Your task to perform on an android device: delete location history Image 0: 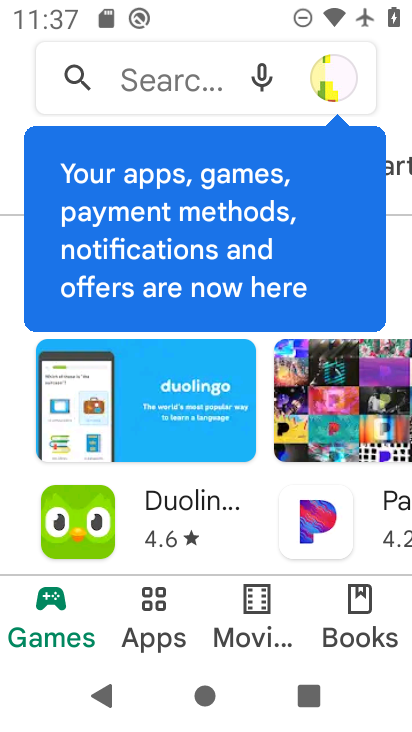
Step 0: press back button
Your task to perform on an android device: delete location history Image 1: 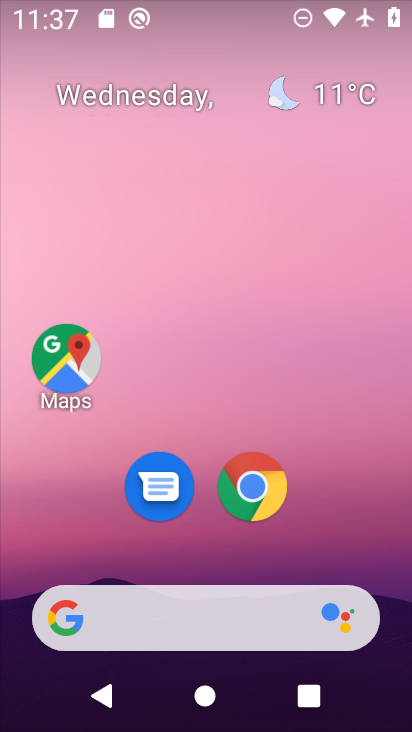
Step 1: drag from (317, 499) to (240, 8)
Your task to perform on an android device: delete location history Image 2: 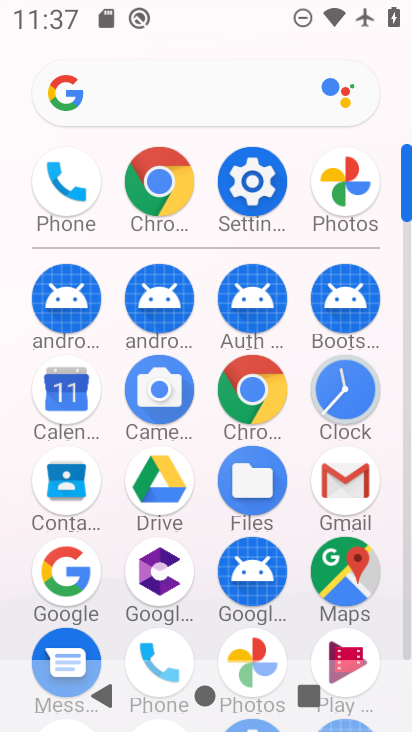
Step 2: click (249, 179)
Your task to perform on an android device: delete location history Image 3: 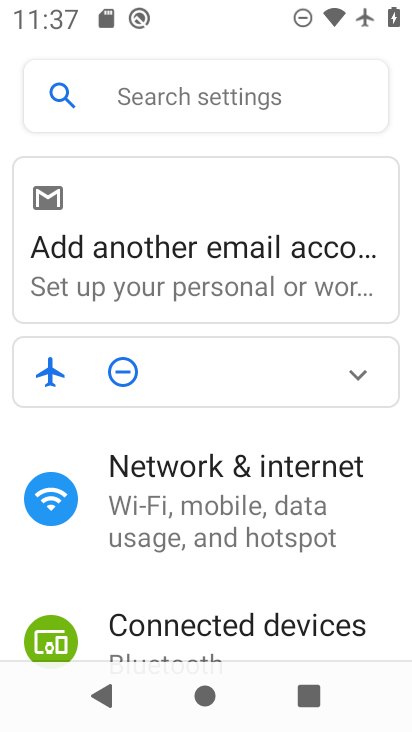
Step 3: drag from (261, 554) to (277, 100)
Your task to perform on an android device: delete location history Image 4: 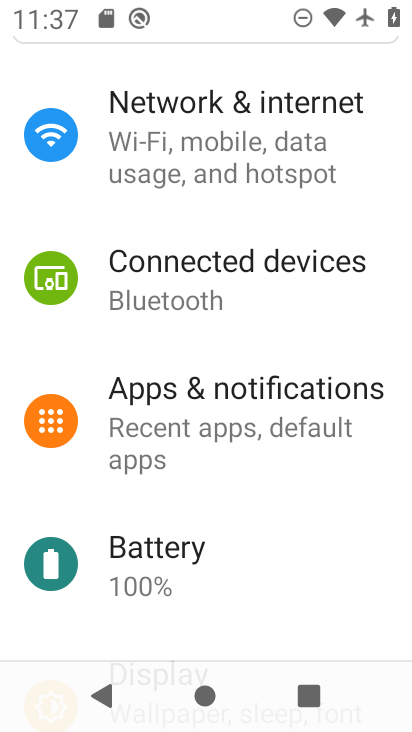
Step 4: drag from (260, 529) to (255, 135)
Your task to perform on an android device: delete location history Image 5: 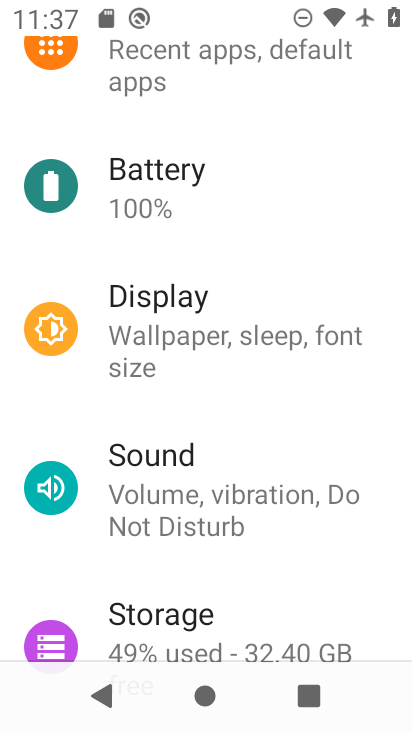
Step 5: drag from (214, 549) to (232, 259)
Your task to perform on an android device: delete location history Image 6: 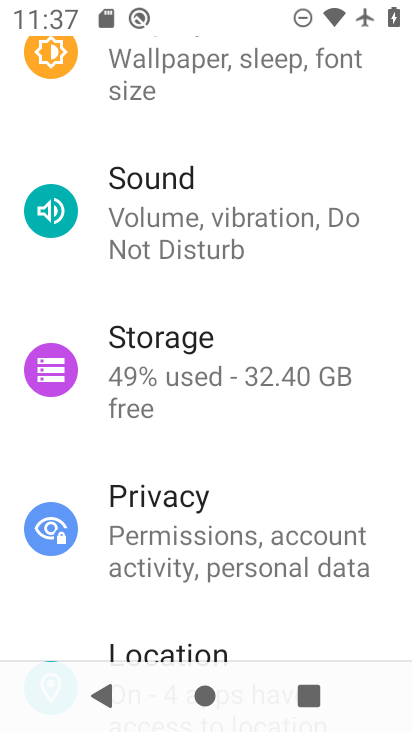
Step 6: drag from (271, 579) to (263, 116)
Your task to perform on an android device: delete location history Image 7: 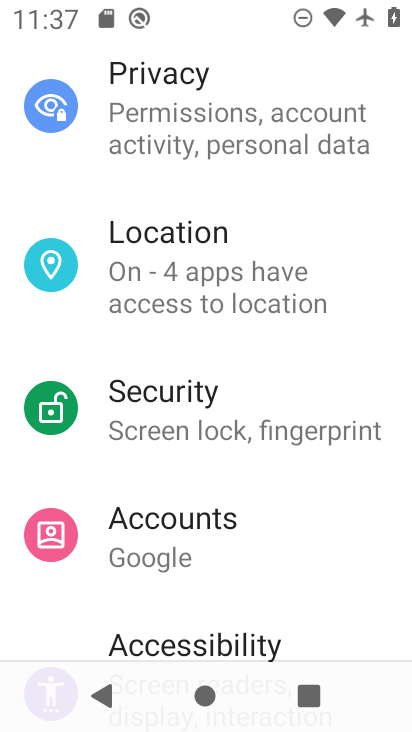
Step 7: click (243, 255)
Your task to perform on an android device: delete location history Image 8: 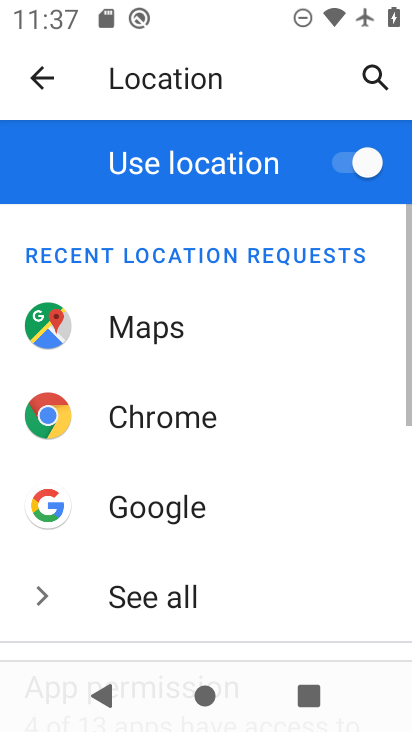
Step 8: drag from (275, 494) to (236, 76)
Your task to perform on an android device: delete location history Image 9: 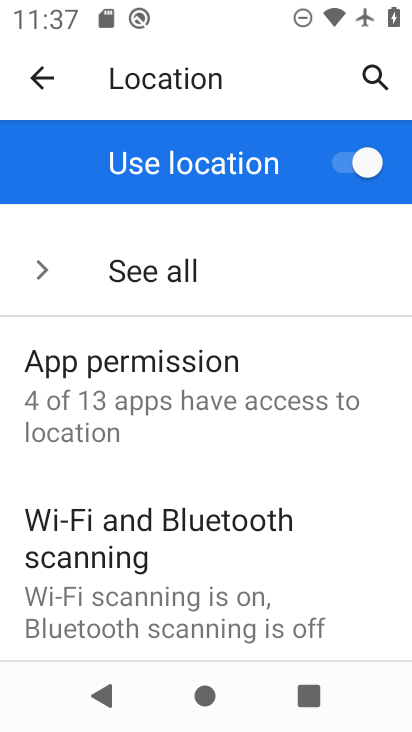
Step 9: drag from (240, 572) to (262, 222)
Your task to perform on an android device: delete location history Image 10: 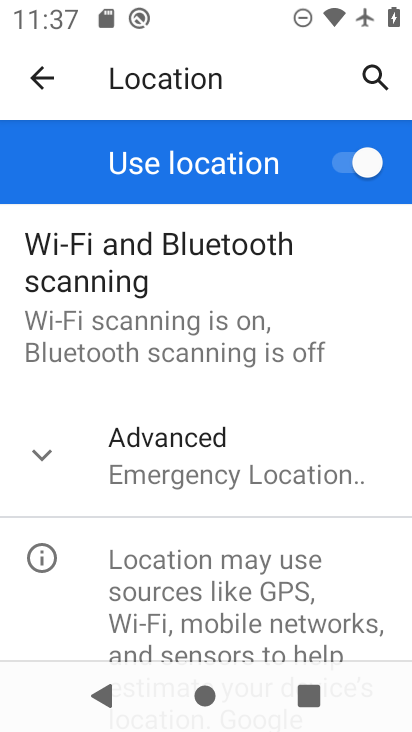
Step 10: click (212, 449)
Your task to perform on an android device: delete location history Image 11: 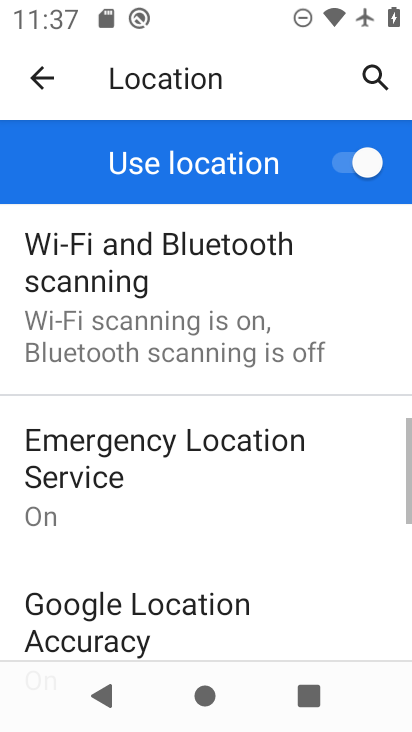
Step 11: drag from (258, 521) to (278, 230)
Your task to perform on an android device: delete location history Image 12: 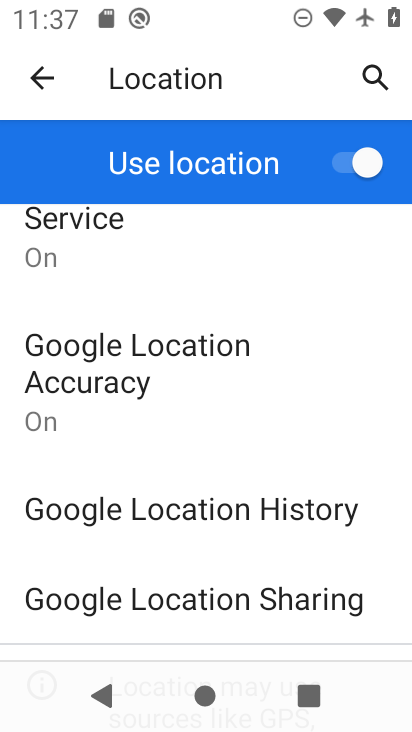
Step 12: click (238, 498)
Your task to perform on an android device: delete location history Image 13: 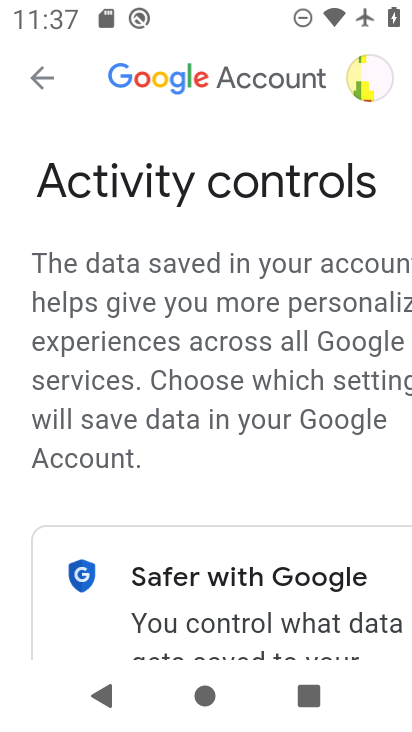
Step 13: drag from (238, 561) to (188, 176)
Your task to perform on an android device: delete location history Image 14: 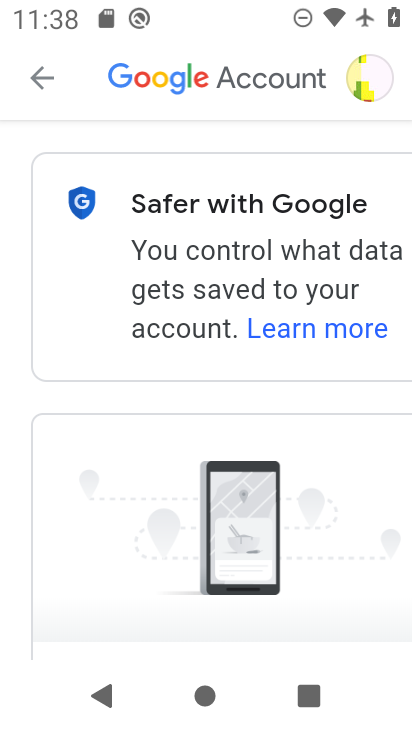
Step 14: drag from (151, 502) to (110, 210)
Your task to perform on an android device: delete location history Image 15: 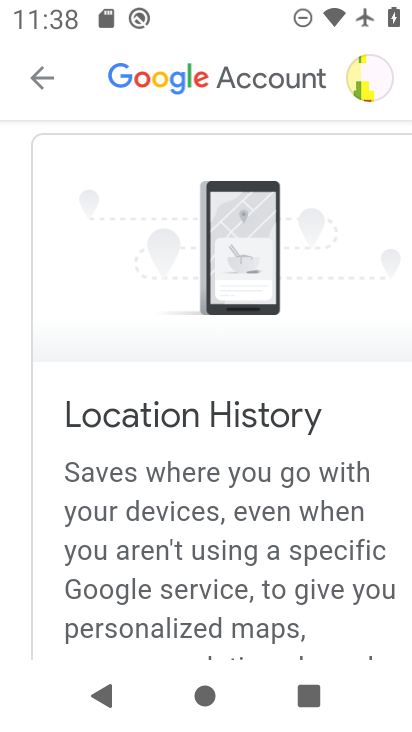
Step 15: drag from (184, 519) to (122, 135)
Your task to perform on an android device: delete location history Image 16: 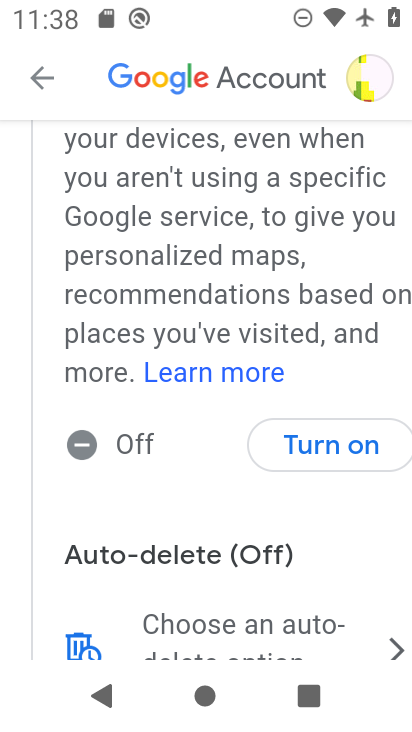
Step 16: drag from (181, 545) to (149, 185)
Your task to perform on an android device: delete location history Image 17: 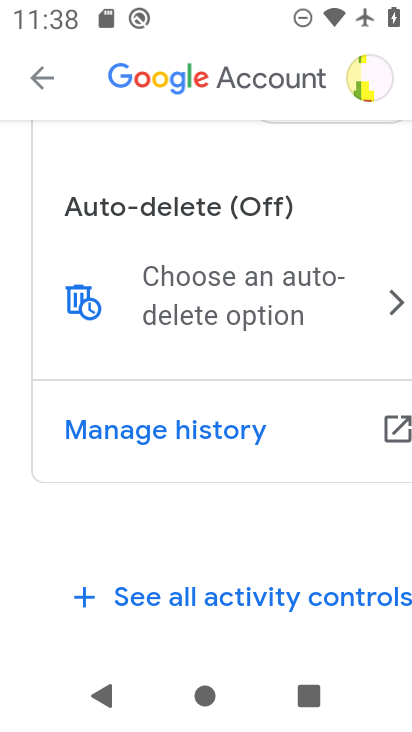
Step 17: click (78, 293)
Your task to perform on an android device: delete location history Image 18: 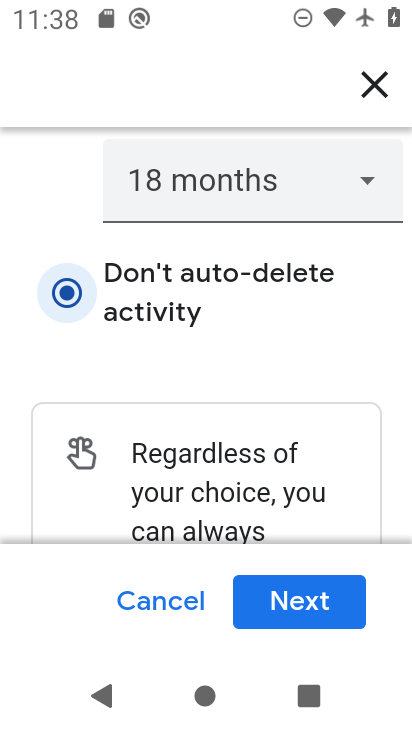
Step 18: click (297, 594)
Your task to perform on an android device: delete location history Image 19: 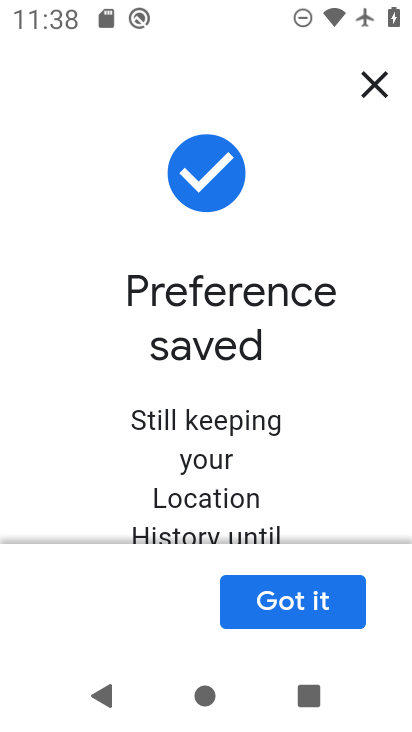
Step 19: task complete